Your task to perform on an android device: Open the calendar app, open the side menu, and click the "Day" option Image 0: 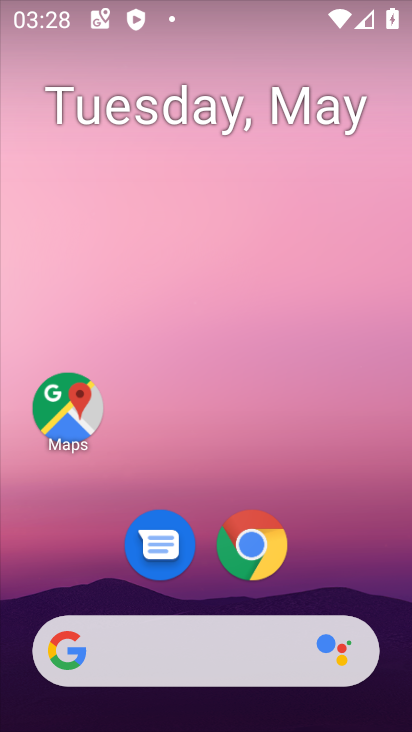
Step 0: drag from (396, 641) to (214, 117)
Your task to perform on an android device: Open the calendar app, open the side menu, and click the "Day" option Image 1: 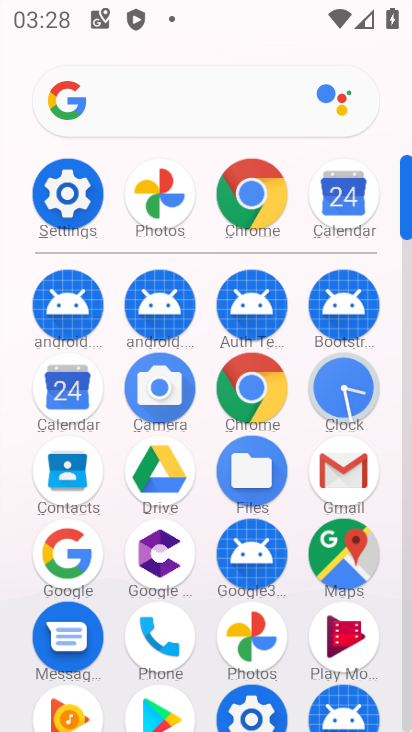
Step 1: click (406, 686)
Your task to perform on an android device: Open the calendar app, open the side menu, and click the "Day" option Image 2: 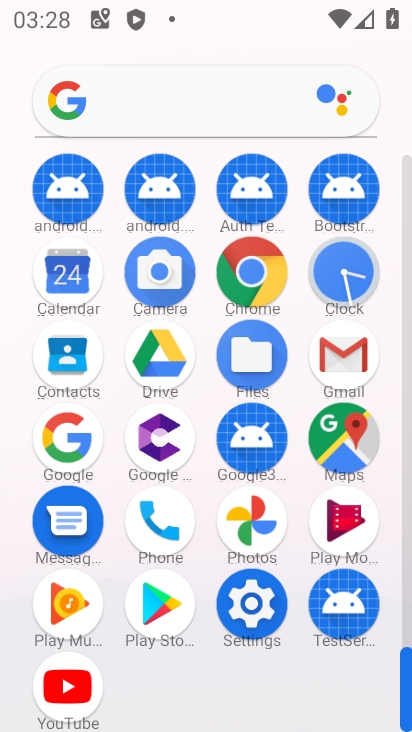
Step 2: click (62, 271)
Your task to perform on an android device: Open the calendar app, open the side menu, and click the "Day" option Image 3: 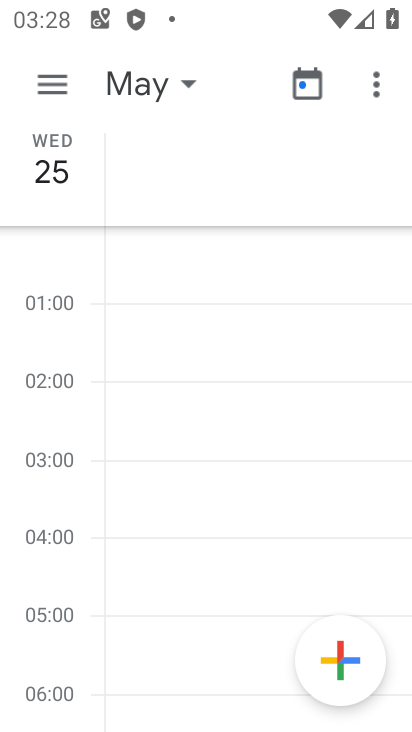
Step 3: click (46, 80)
Your task to perform on an android device: Open the calendar app, open the side menu, and click the "Day" option Image 4: 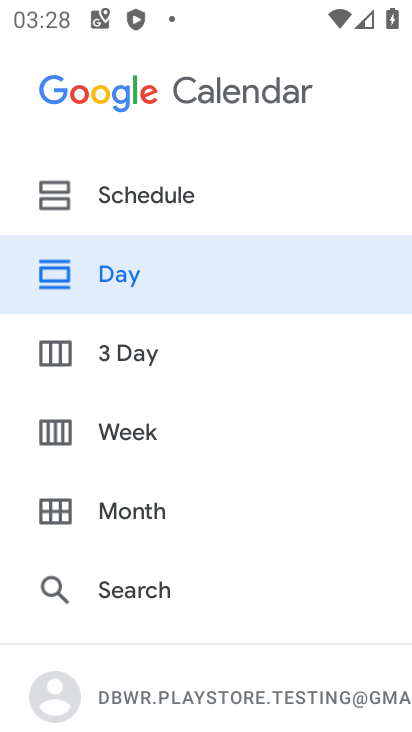
Step 4: click (119, 279)
Your task to perform on an android device: Open the calendar app, open the side menu, and click the "Day" option Image 5: 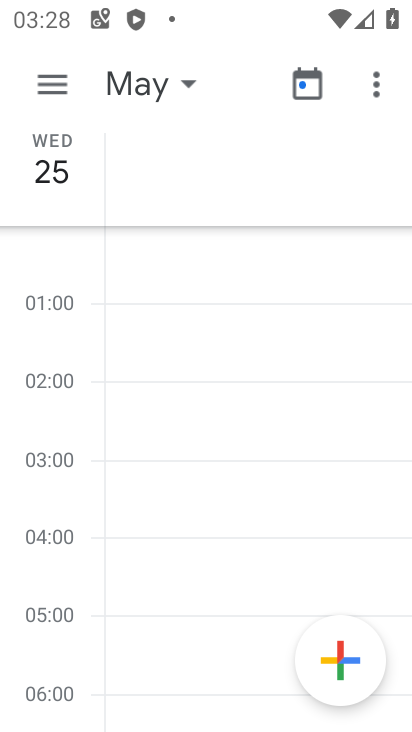
Step 5: task complete